Your task to perform on an android device: Show me popular videos on Youtube Image 0: 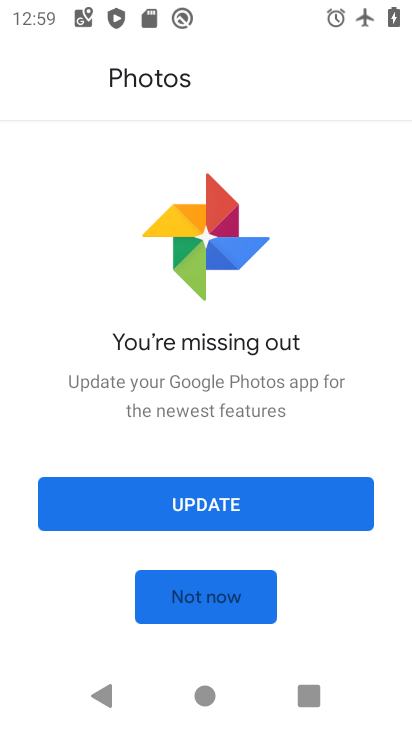
Step 0: press home button
Your task to perform on an android device: Show me popular videos on Youtube Image 1: 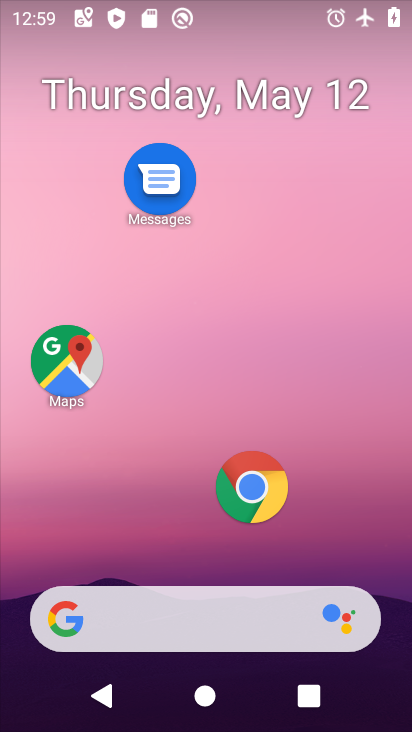
Step 1: drag from (187, 540) to (246, 203)
Your task to perform on an android device: Show me popular videos on Youtube Image 2: 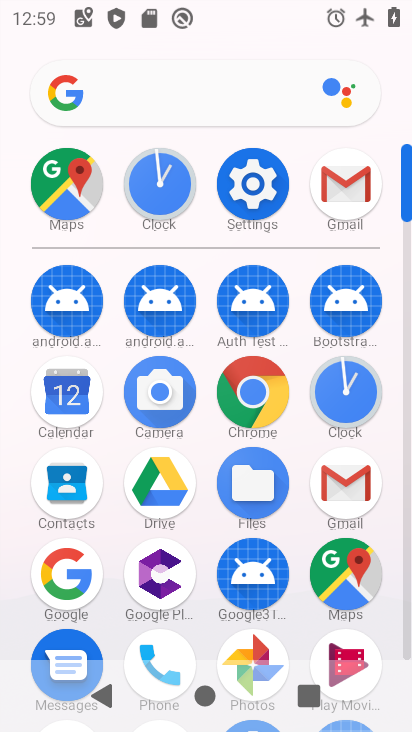
Step 2: drag from (254, 571) to (347, 267)
Your task to perform on an android device: Show me popular videos on Youtube Image 3: 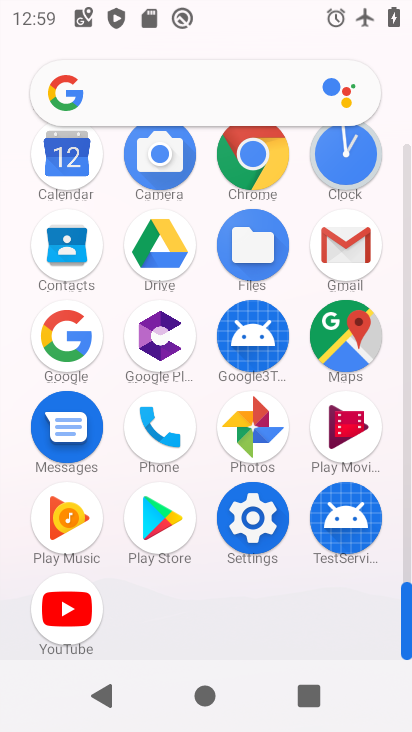
Step 3: click (40, 625)
Your task to perform on an android device: Show me popular videos on Youtube Image 4: 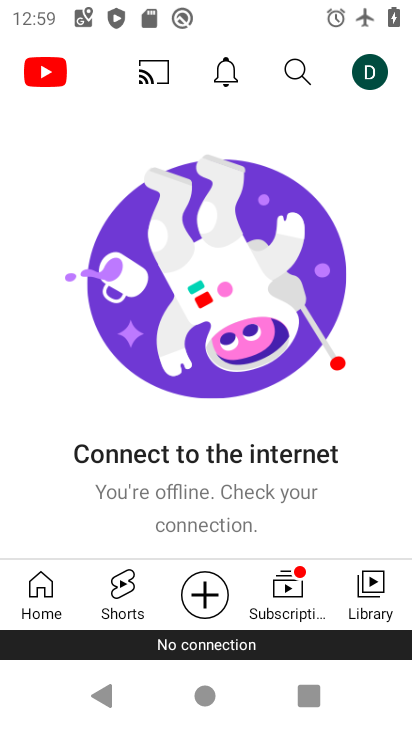
Step 4: click (303, 72)
Your task to perform on an android device: Show me popular videos on Youtube Image 5: 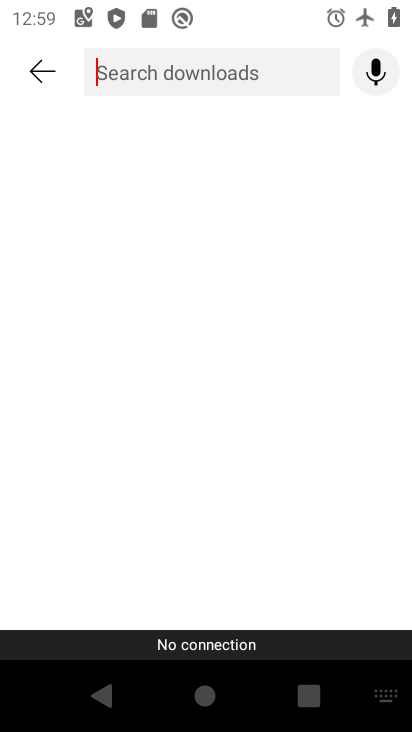
Step 5: type "popular videos"
Your task to perform on an android device: Show me popular videos on Youtube Image 6: 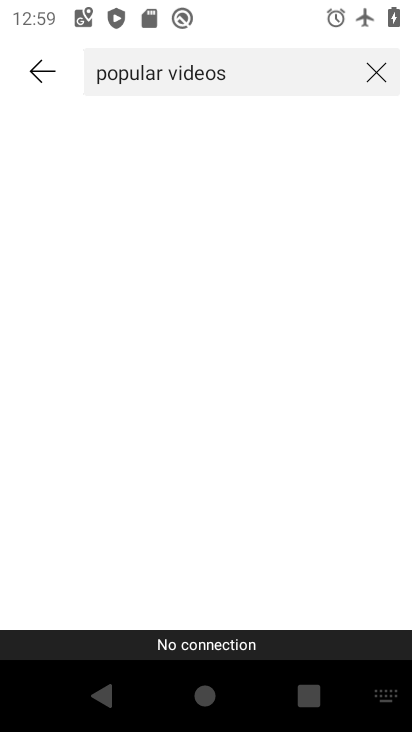
Step 6: task complete